Your task to perform on an android device: turn vacation reply on in the gmail app Image 0: 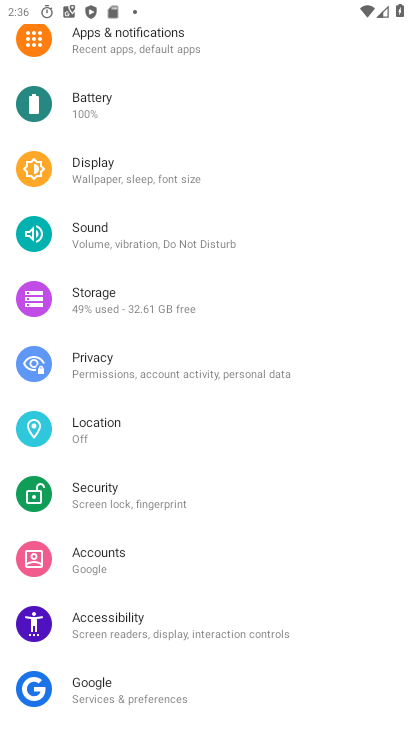
Step 0: press home button
Your task to perform on an android device: turn vacation reply on in the gmail app Image 1: 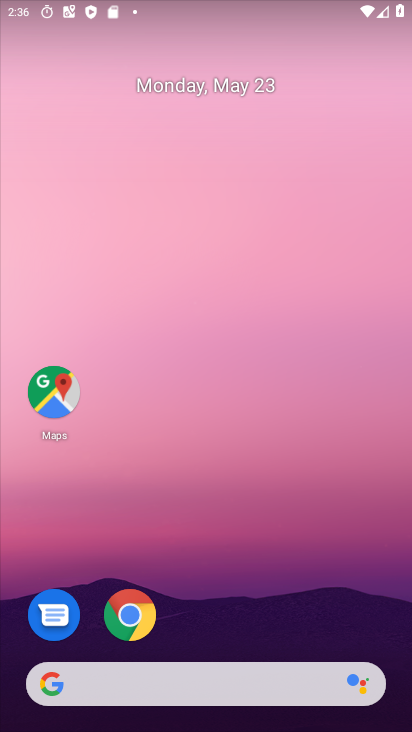
Step 1: drag from (247, 643) to (300, 19)
Your task to perform on an android device: turn vacation reply on in the gmail app Image 2: 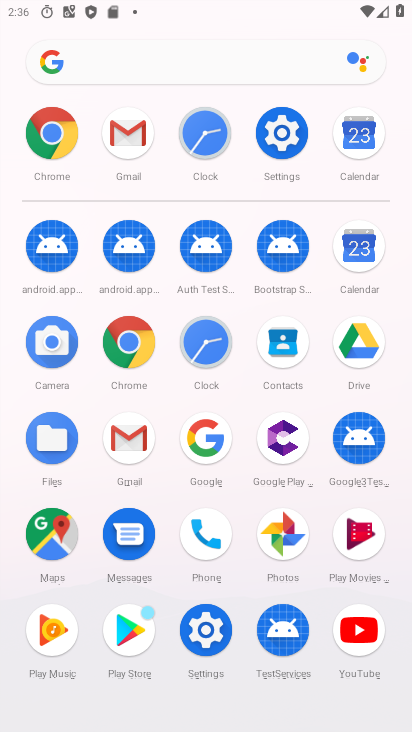
Step 2: click (128, 130)
Your task to perform on an android device: turn vacation reply on in the gmail app Image 3: 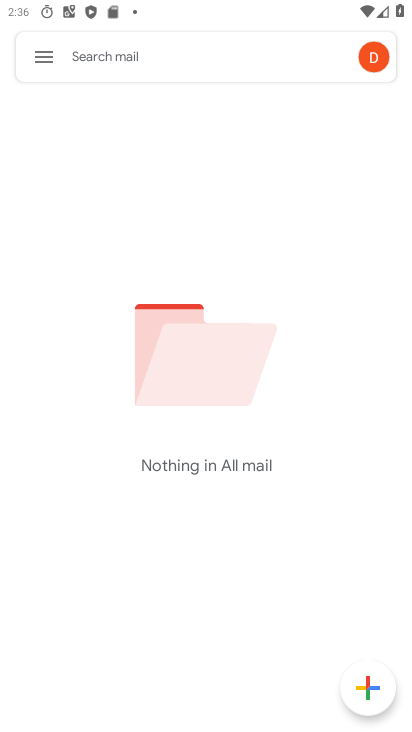
Step 3: click (45, 54)
Your task to perform on an android device: turn vacation reply on in the gmail app Image 4: 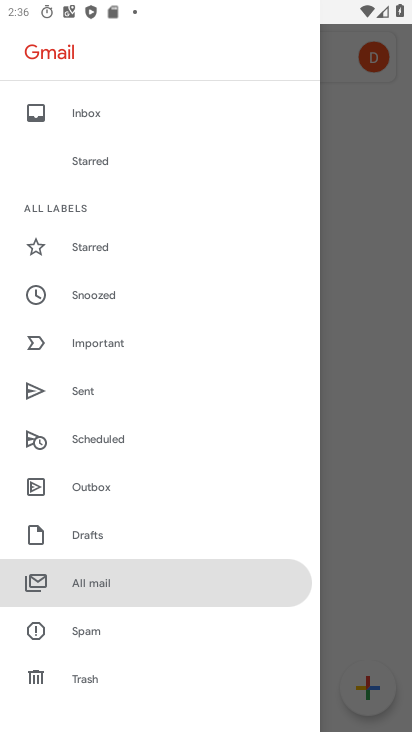
Step 4: drag from (179, 492) to (199, 71)
Your task to perform on an android device: turn vacation reply on in the gmail app Image 5: 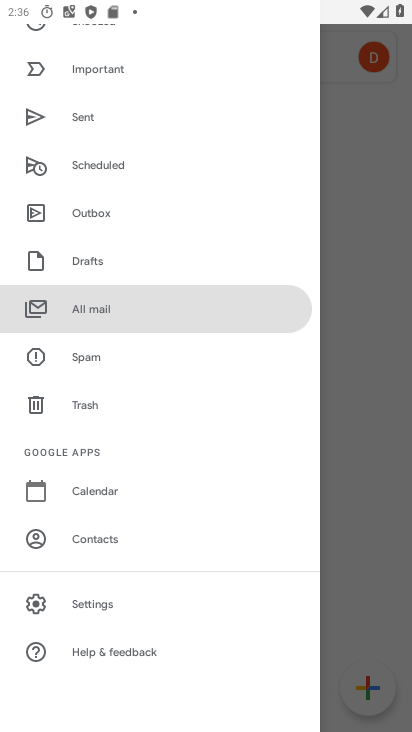
Step 5: click (93, 608)
Your task to perform on an android device: turn vacation reply on in the gmail app Image 6: 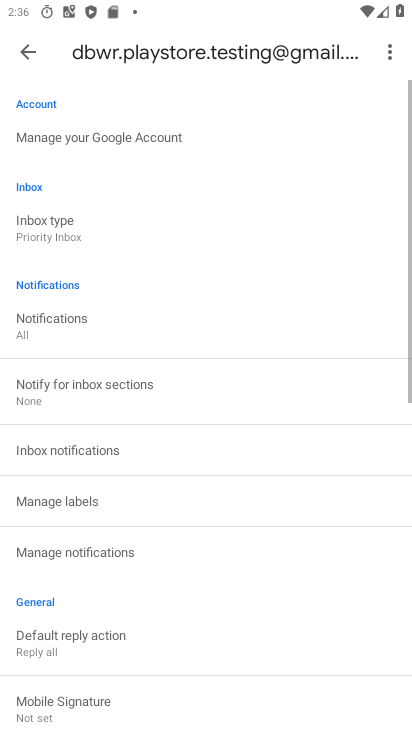
Step 6: drag from (172, 609) to (181, 167)
Your task to perform on an android device: turn vacation reply on in the gmail app Image 7: 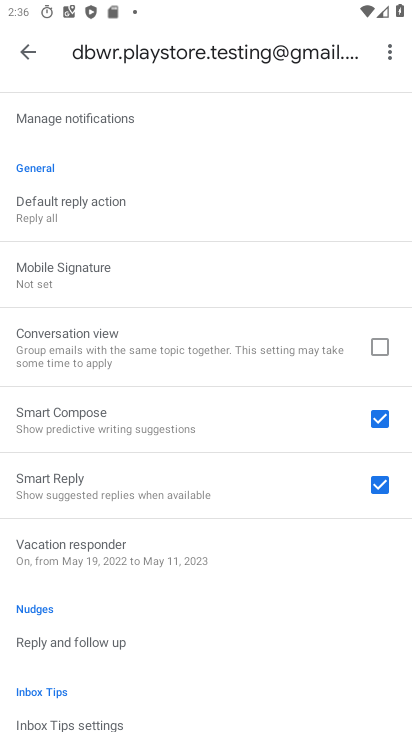
Step 7: click (60, 558)
Your task to perform on an android device: turn vacation reply on in the gmail app Image 8: 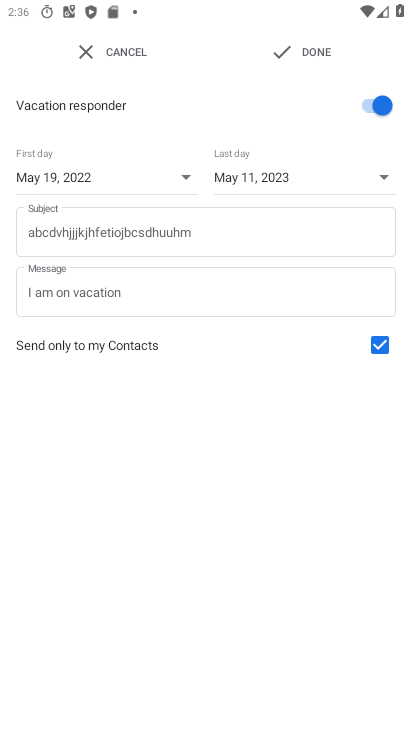
Step 8: click (309, 53)
Your task to perform on an android device: turn vacation reply on in the gmail app Image 9: 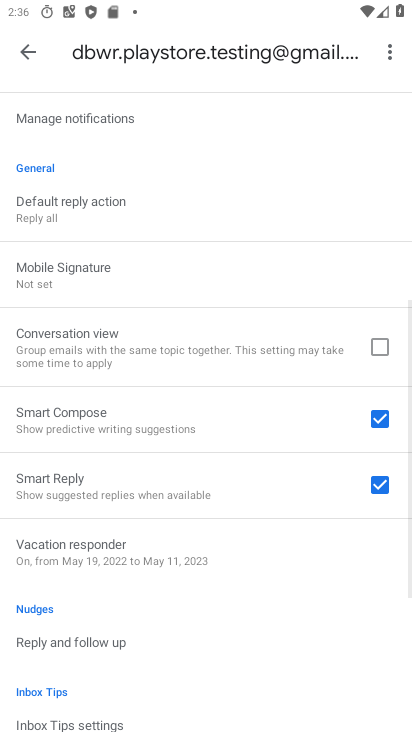
Step 9: task complete